Your task to perform on an android device: Show the shopping cart on ebay.com. Image 0: 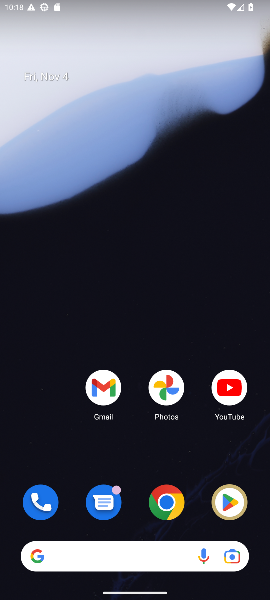
Step 0: drag from (140, 488) to (157, 36)
Your task to perform on an android device: Show the shopping cart on ebay.com. Image 1: 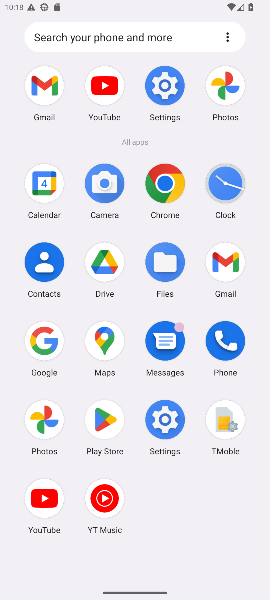
Step 1: click (168, 187)
Your task to perform on an android device: Show the shopping cart on ebay.com. Image 2: 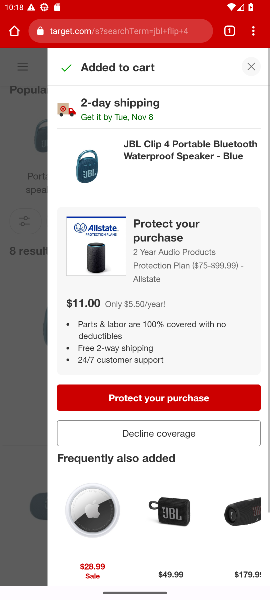
Step 2: click (153, 35)
Your task to perform on an android device: Show the shopping cart on ebay.com. Image 3: 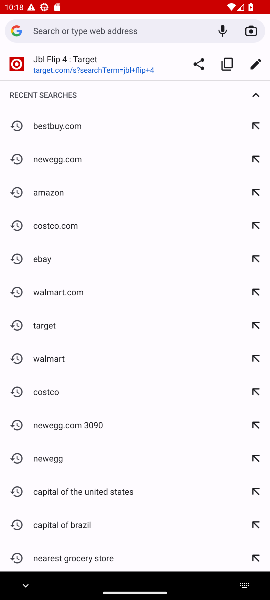
Step 3: type "ebay.com"
Your task to perform on an android device: Show the shopping cart on ebay.com. Image 4: 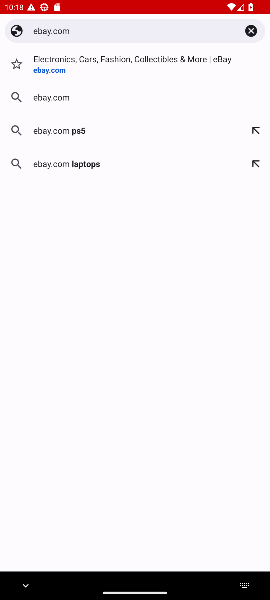
Step 4: press enter
Your task to perform on an android device: Show the shopping cart on ebay.com. Image 5: 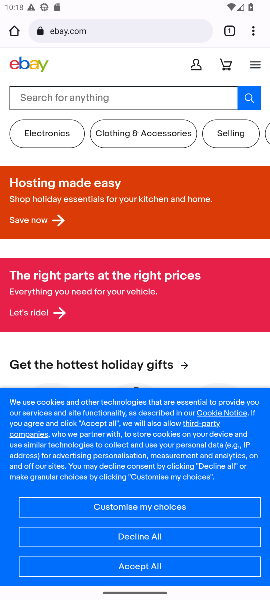
Step 5: click (226, 70)
Your task to perform on an android device: Show the shopping cart on ebay.com. Image 6: 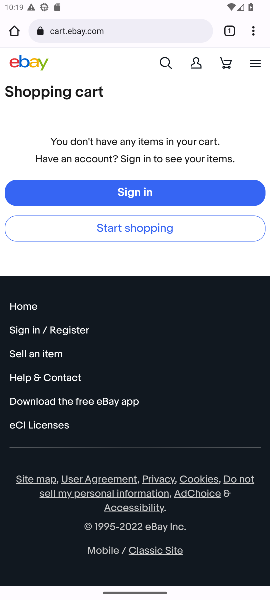
Step 6: task complete